Your task to perform on an android device: Open eBay Image 0: 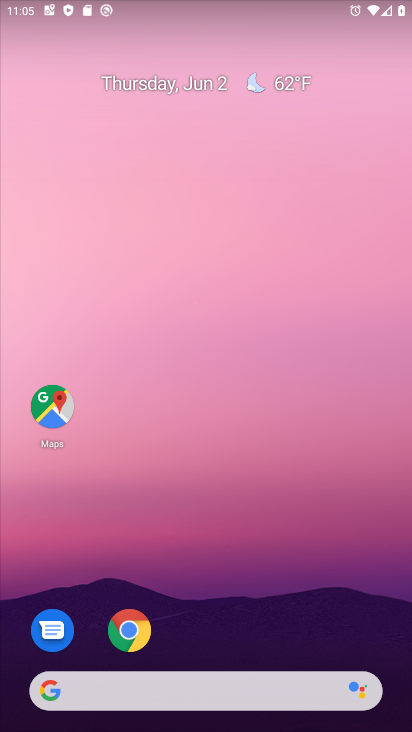
Step 0: press home button
Your task to perform on an android device: Open eBay Image 1: 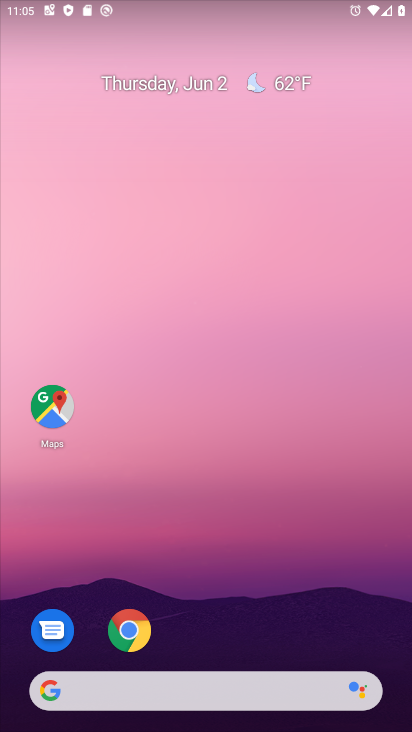
Step 1: click (131, 633)
Your task to perform on an android device: Open eBay Image 2: 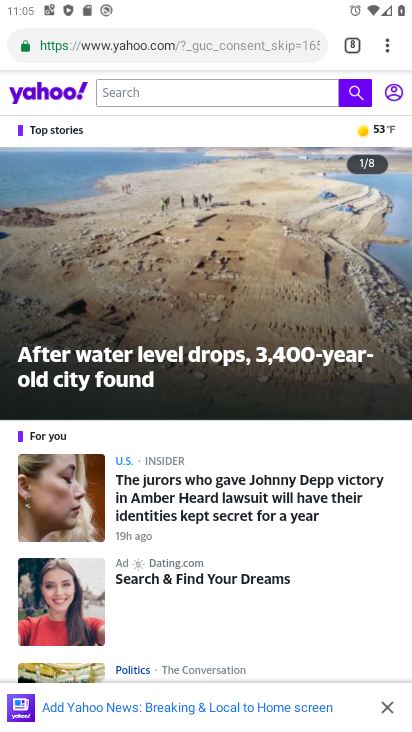
Step 2: drag from (388, 49) to (280, 86)
Your task to perform on an android device: Open eBay Image 3: 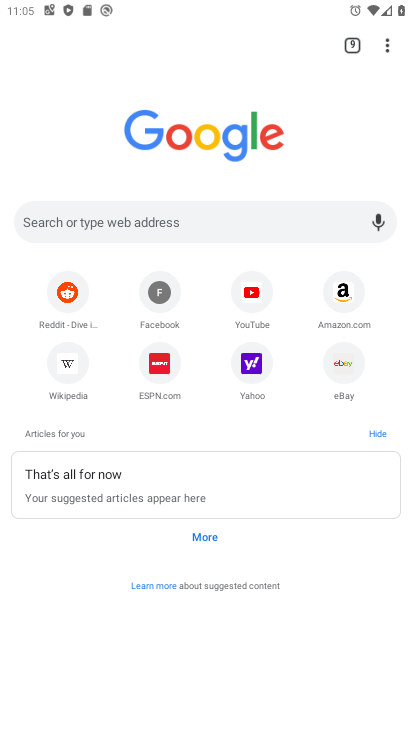
Step 3: click (340, 362)
Your task to perform on an android device: Open eBay Image 4: 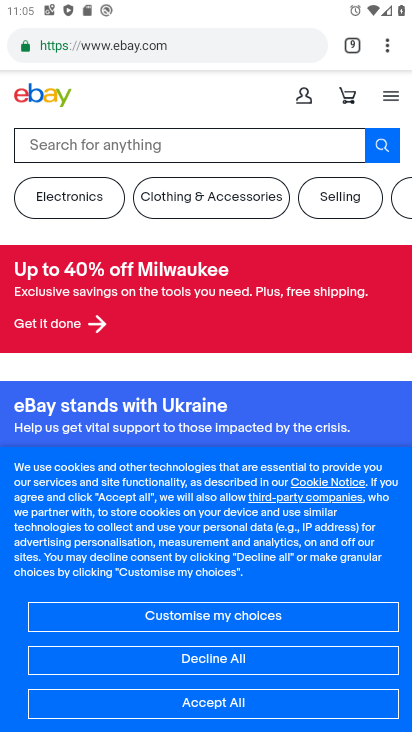
Step 4: click (232, 703)
Your task to perform on an android device: Open eBay Image 5: 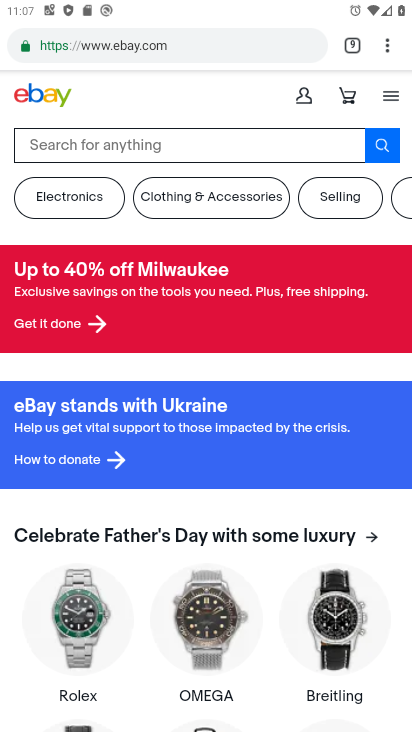
Step 5: task complete